Your task to perform on an android device: check battery use Image 0: 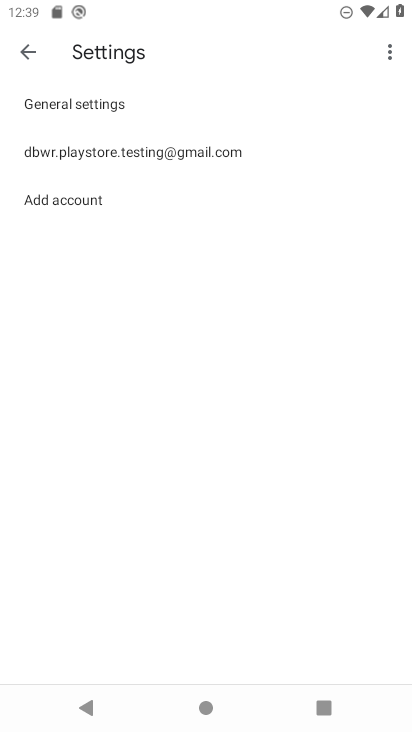
Step 0: drag from (280, 83) to (267, 608)
Your task to perform on an android device: check battery use Image 1: 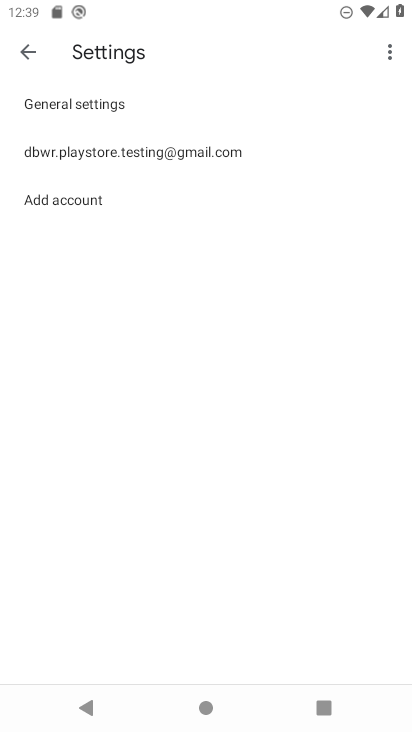
Step 1: drag from (245, 11) to (217, 626)
Your task to perform on an android device: check battery use Image 2: 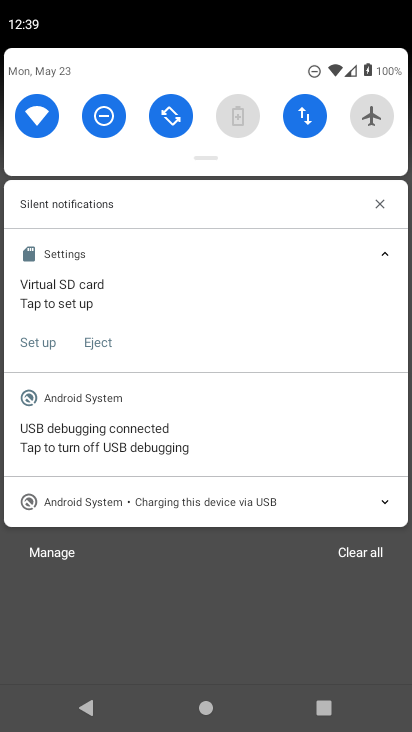
Step 2: drag from (243, 78) to (151, 727)
Your task to perform on an android device: check battery use Image 3: 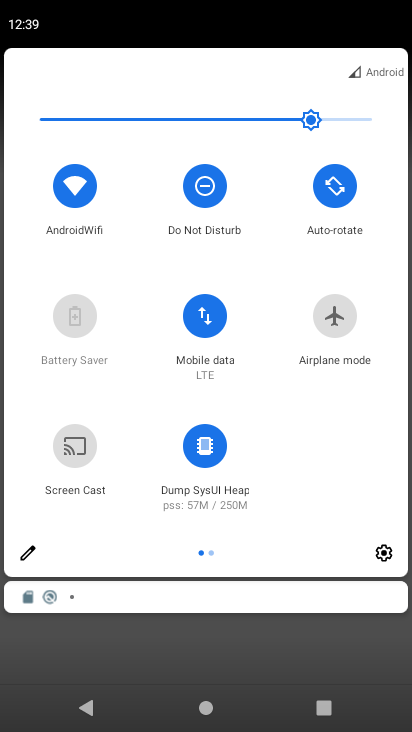
Step 3: click (387, 545)
Your task to perform on an android device: check battery use Image 4: 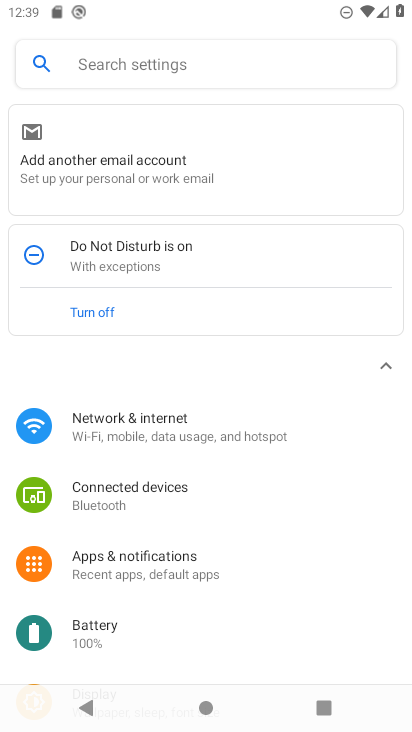
Step 4: click (156, 624)
Your task to perform on an android device: check battery use Image 5: 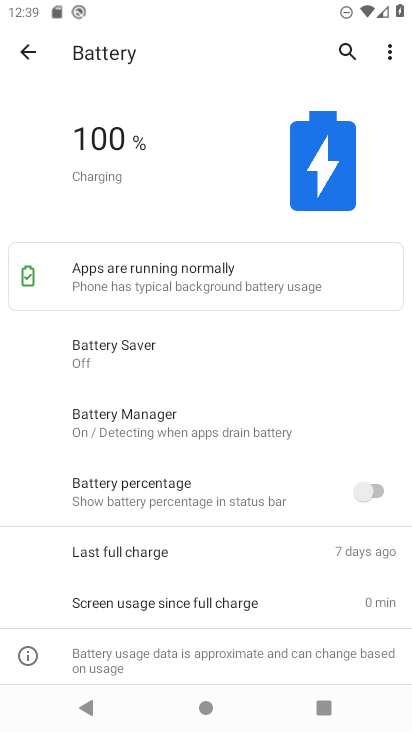
Step 5: click (400, 56)
Your task to perform on an android device: check battery use Image 6: 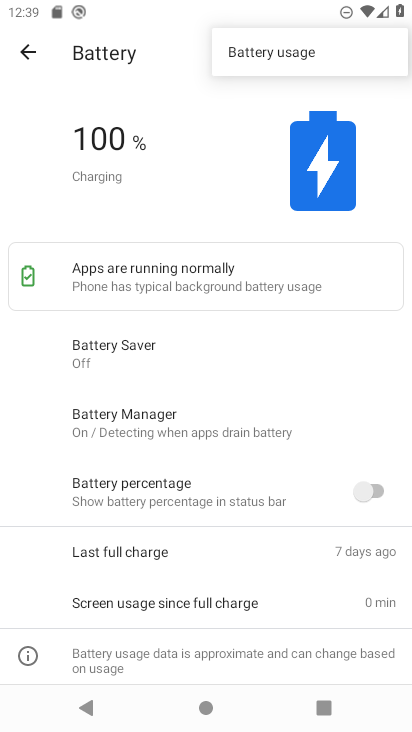
Step 6: click (290, 38)
Your task to perform on an android device: check battery use Image 7: 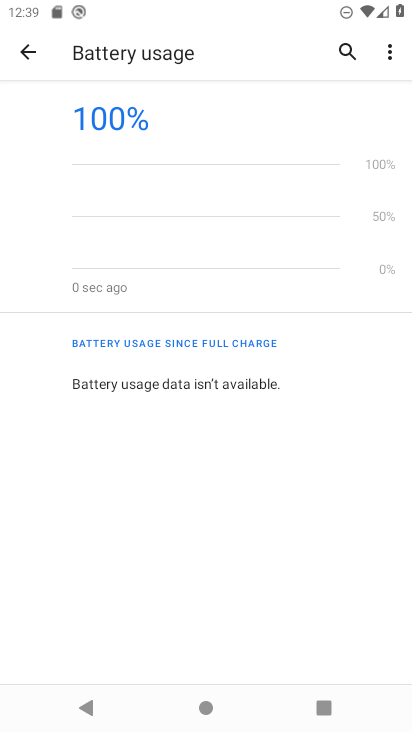
Step 7: task complete